Your task to perform on an android device: make emails show in primary in the gmail app Image 0: 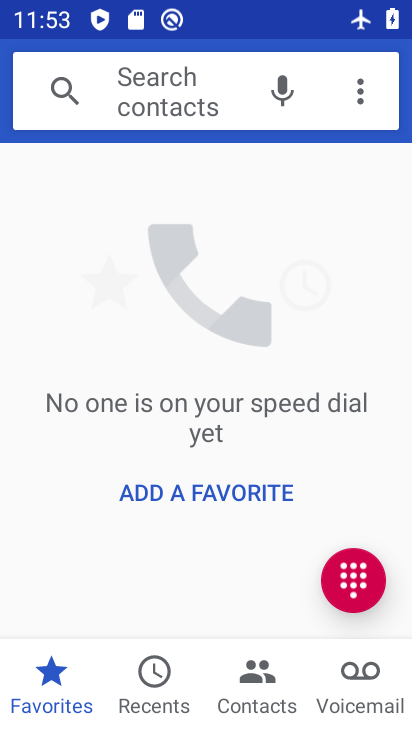
Step 0: press home button
Your task to perform on an android device: make emails show in primary in the gmail app Image 1: 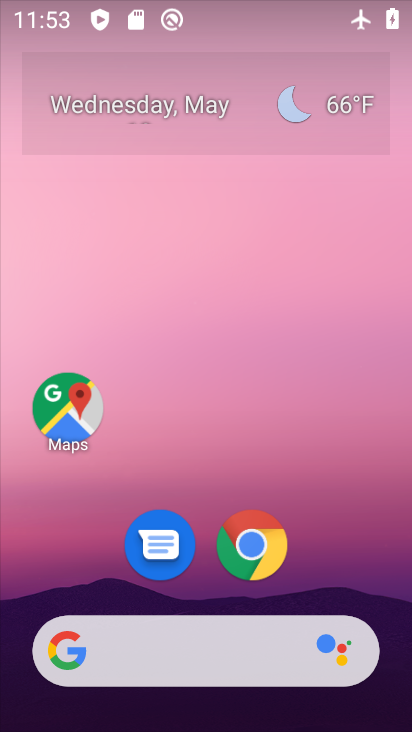
Step 1: drag from (167, 705) to (248, 193)
Your task to perform on an android device: make emails show in primary in the gmail app Image 2: 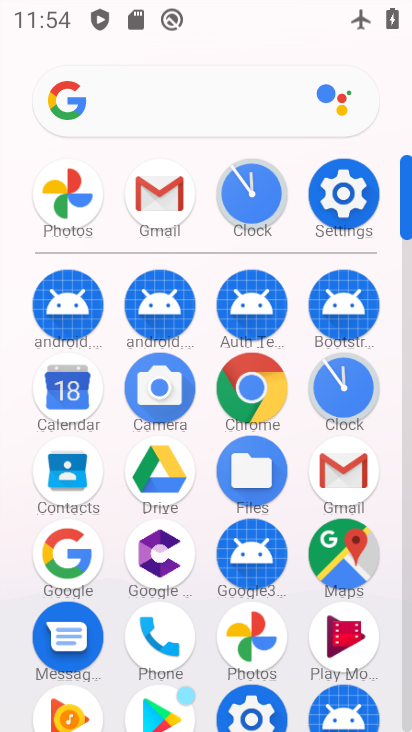
Step 2: click (150, 197)
Your task to perform on an android device: make emails show in primary in the gmail app Image 3: 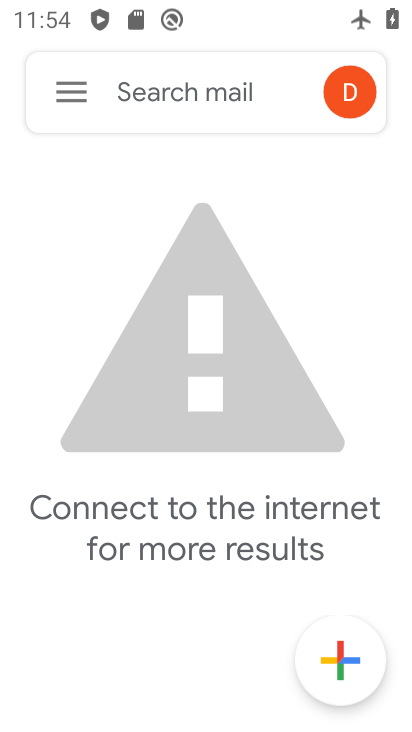
Step 3: click (67, 107)
Your task to perform on an android device: make emails show in primary in the gmail app Image 4: 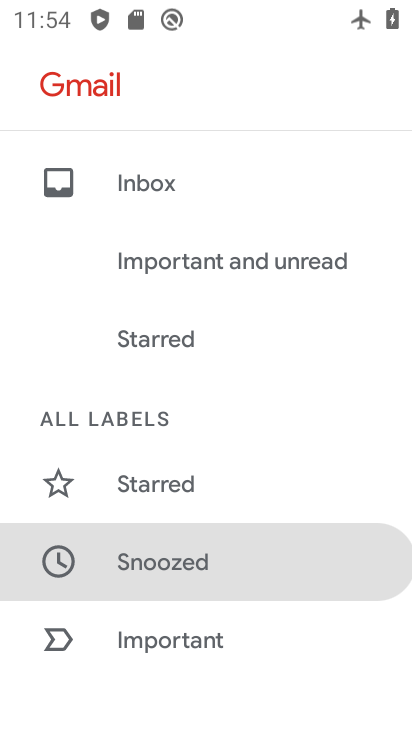
Step 4: drag from (275, 645) to (247, 6)
Your task to perform on an android device: make emails show in primary in the gmail app Image 5: 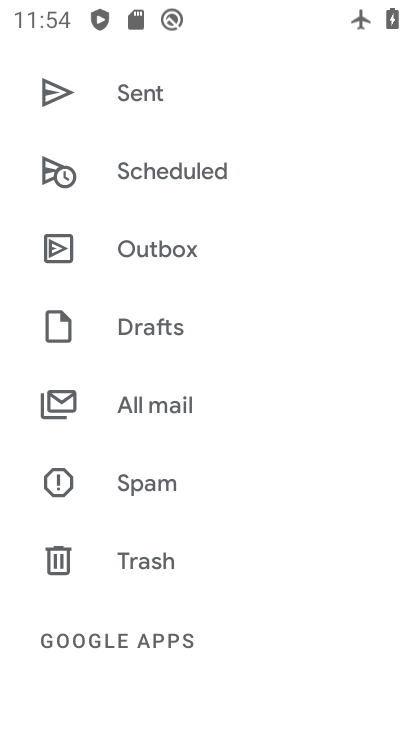
Step 5: drag from (160, 597) to (162, 144)
Your task to perform on an android device: make emails show in primary in the gmail app Image 6: 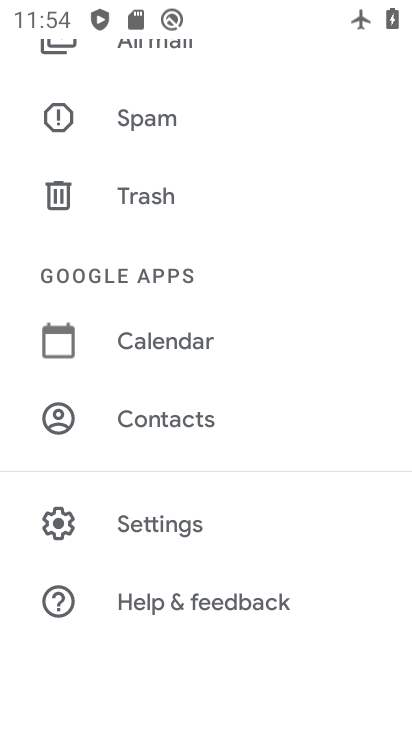
Step 6: click (176, 519)
Your task to perform on an android device: make emails show in primary in the gmail app Image 7: 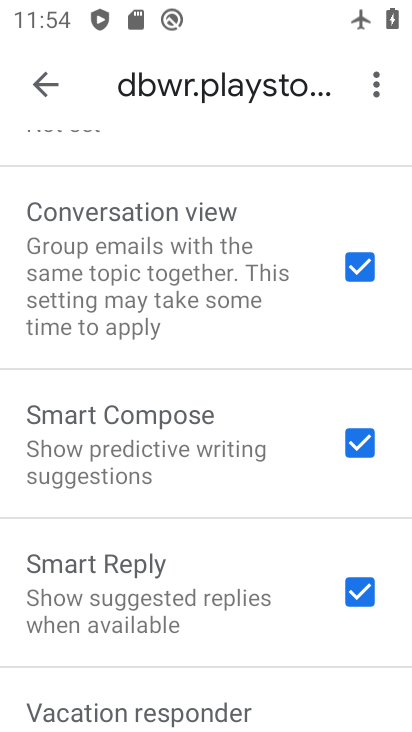
Step 7: drag from (229, 267) to (210, 725)
Your task to perform on an android device: make emails show in primary in the gmail app Image 8: 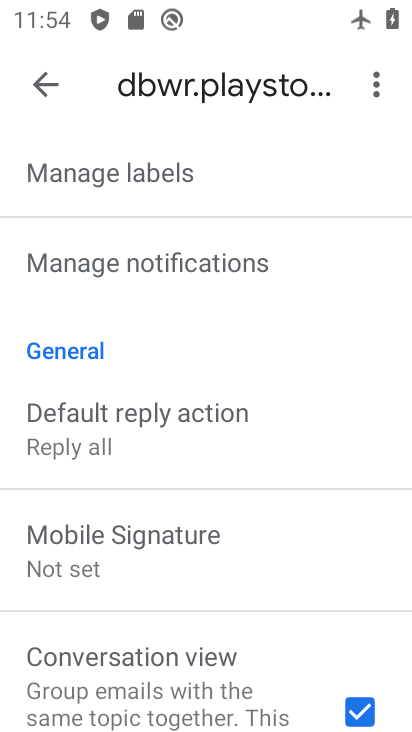
Step 8: drag from (198, 251) to (245, 627)
Your task to perform on an android device: make emails show in primary in the gmail app Image 9: 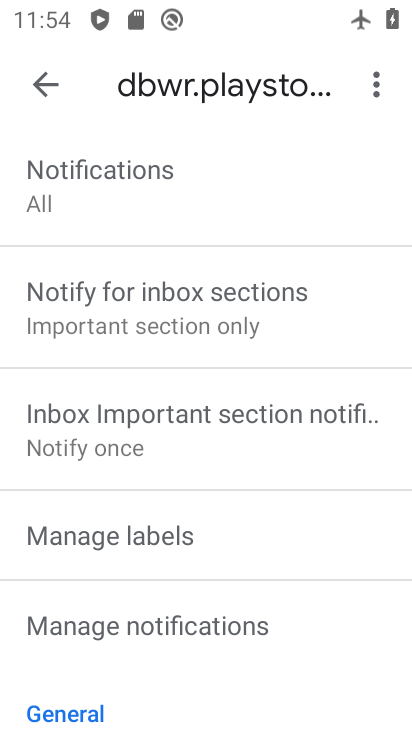
Step 9: drag from (297, 182) to (365, 638)
Your task to perform on an android device: make emails show in primary in the gmail app Image 10: 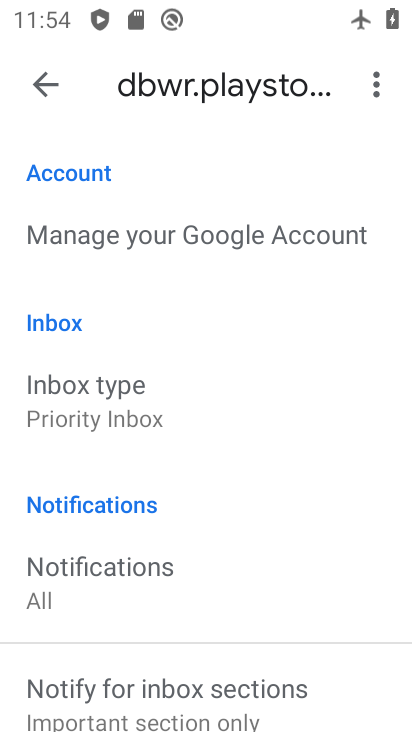
Step 10: click (124, 408)
Your task to perform on an android device: make emails show in primary in the gmail app Image 11: 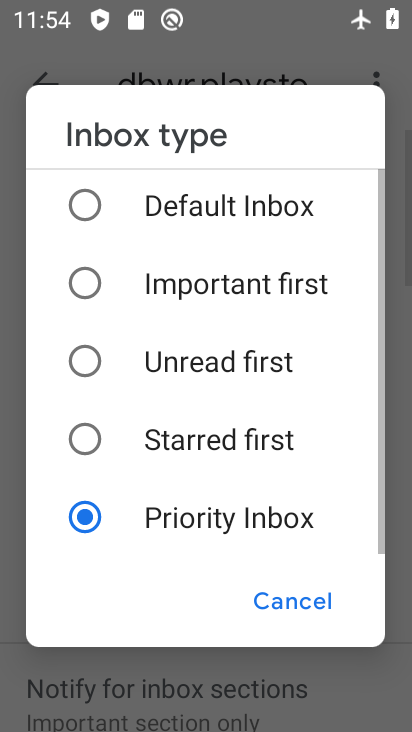
Step 11: click (178, 189)
Your task to perform on an android device: make emails show in primary in the gmail app Image 12: 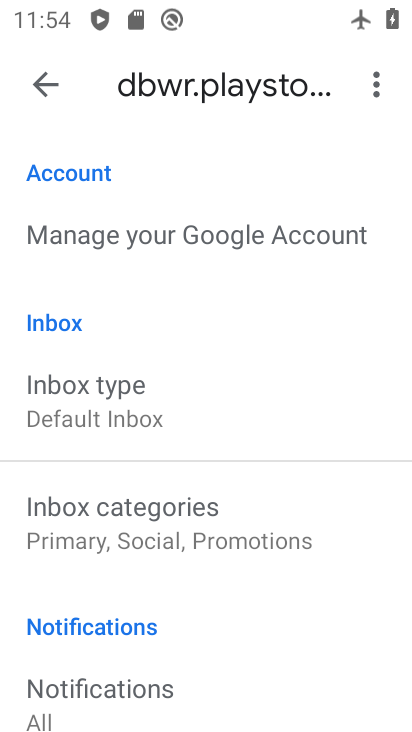
Step 12: click (223, 526)
Your task to perform on an android device: make emails show in primary in the gmail app Image 13: 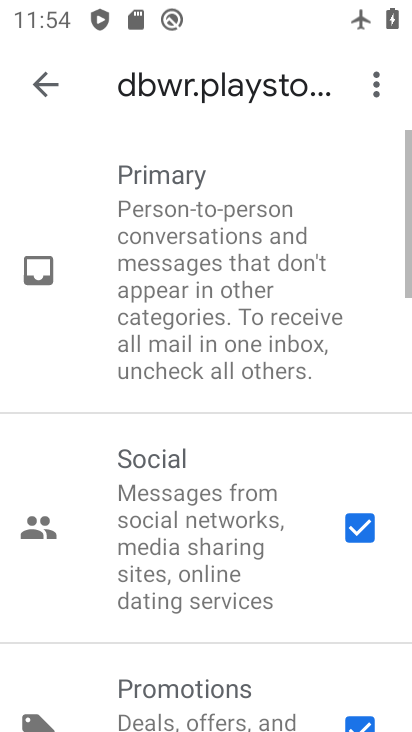
Step 13: click (366, 531)
Your task to perform on an android device: make emails show in primary in the gmail app Image 14: 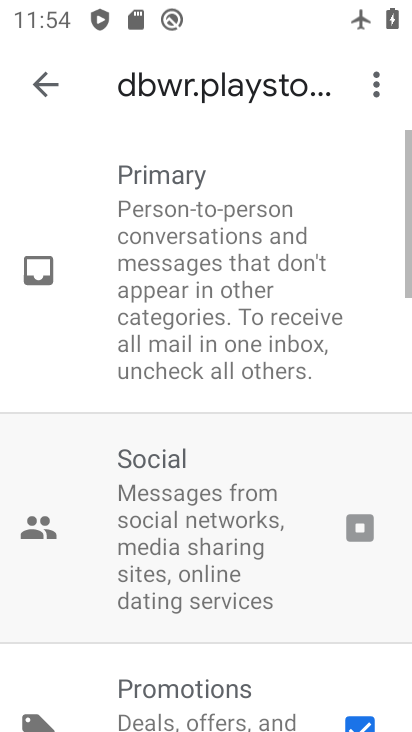
Step 14: click (358, 708)
Your task to perform on an android device: make emails show in primary in the gmail app Image 15: 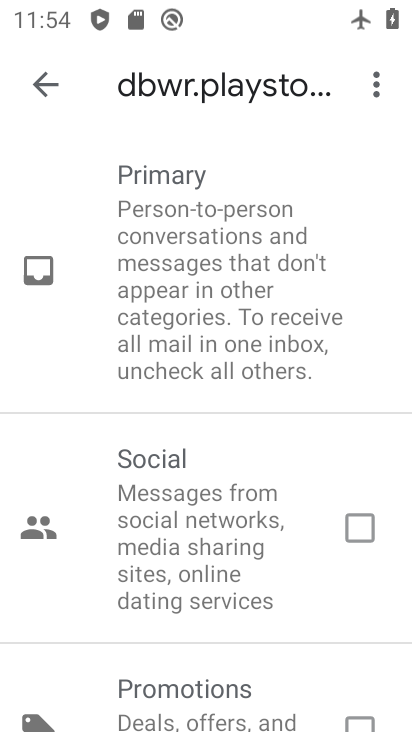
Step 15: click (55, 85)
Your task to perform on an android device: make emails show in primary in the gmail app Image 16: 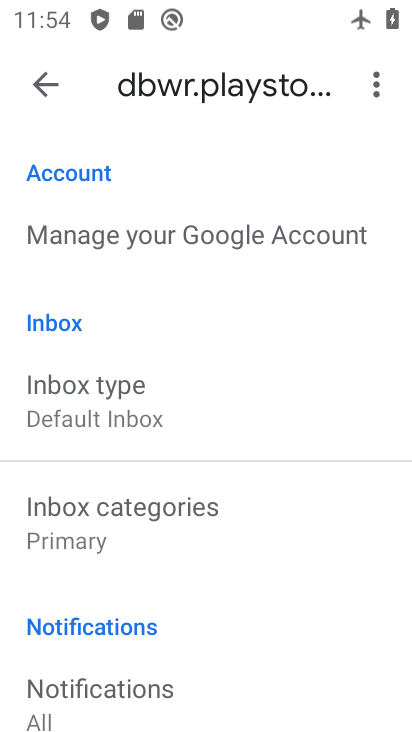
Step 16: task complete